Your task to perform on an android device: Open Youtube and go to the subscriptions tab Image 0: 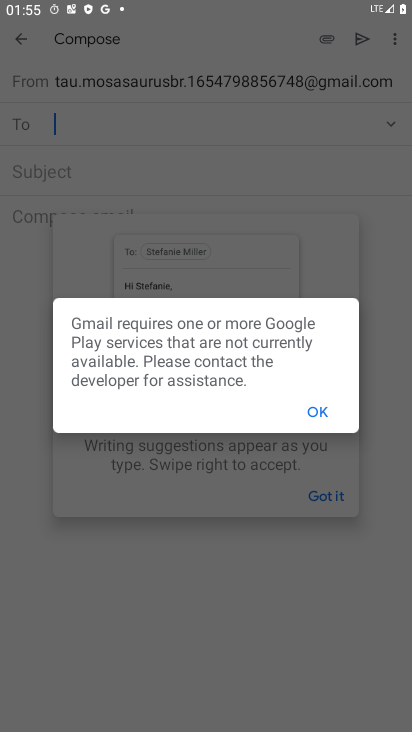
Step 0: press home button
Your task to perform on an android device: Open Youtube and go to the subscriptions tab Image 1: 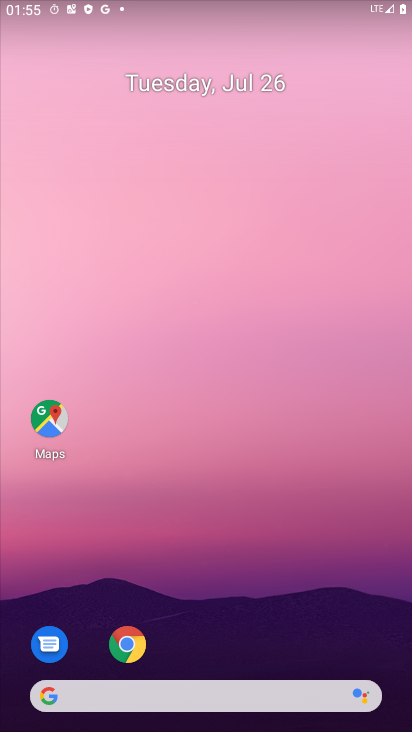
Step 1: drag from (240, 646) to (245, 65)
Your task to perform on an android device: Open Youtube and go to the subscriptions tab Image 2: 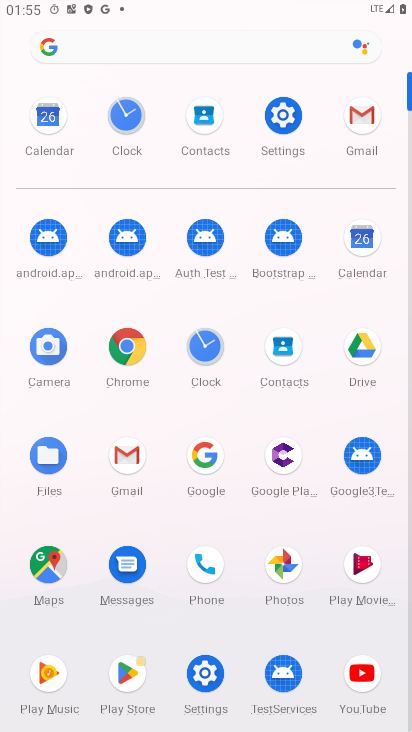
Step 2: click (363, 677)
Your task to perform on an android device: Open Youtube and go to the subscriptions tab Image 3: 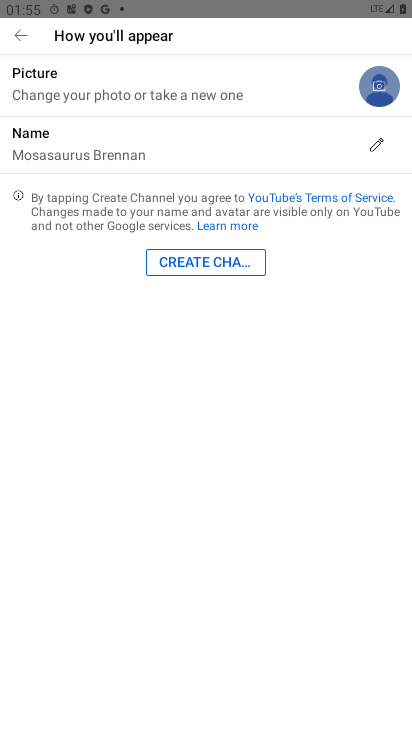
Step 3: click (19, 33)
Your task to perform on an android device: Open Youtube and go to the subscriptions tab Image 4: 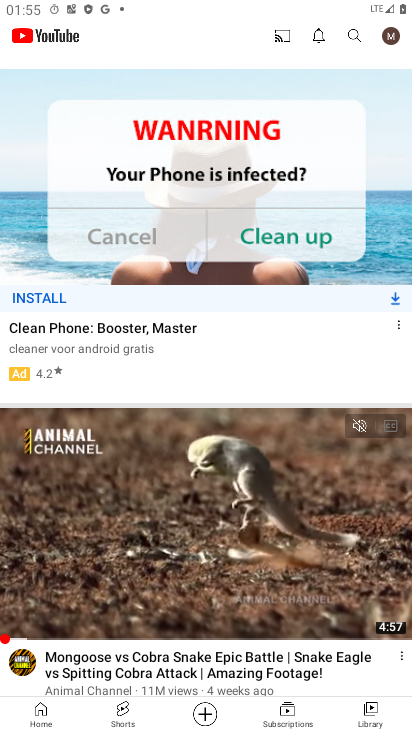
Step 4: click (288, 715)
Your task to perform on an android device: Open Youtube and go to the subscriptions tab Image 5: 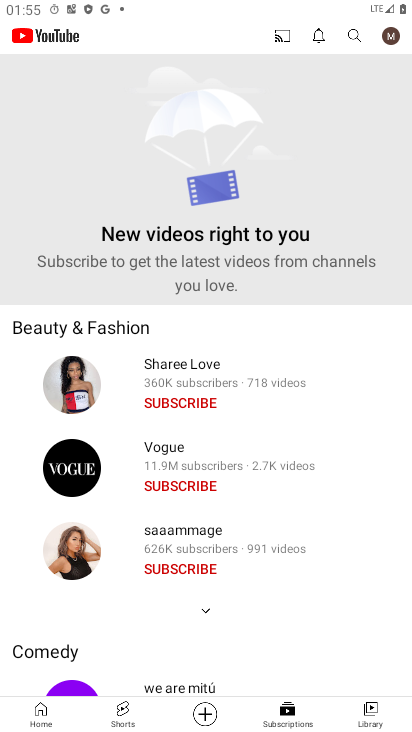
Step 5: task complete